Your task to perform on an android device: Go to Android settings Image 0: 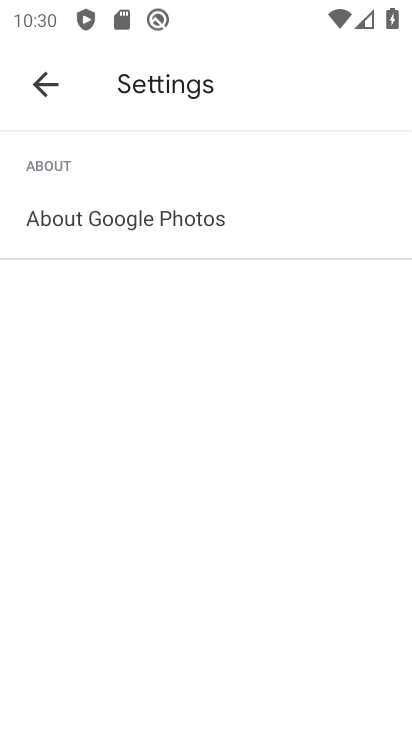
Step 0: press back button
Your task to perform on an android device: Go to Android settings Image 1: 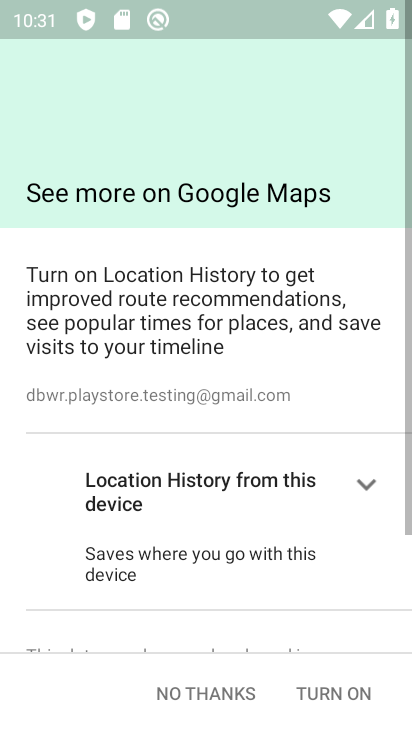
Step 1: press back button
Your task to perform on an android device: Go to Android settings Image 2: 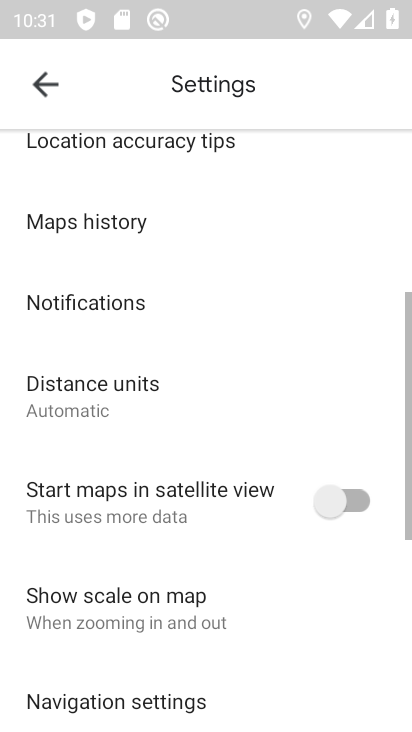
Step 2: press back button
Your task to perform on an android device: Go to Android settings Image 3: 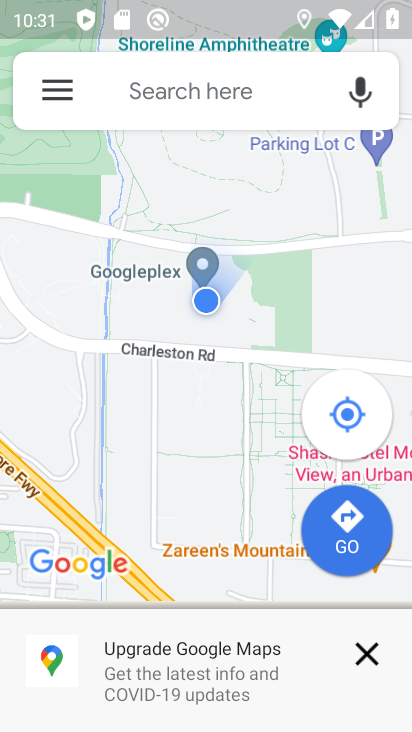
Step 3: press back button
Your task to perform on an android device: Go to Android settings Image 4: 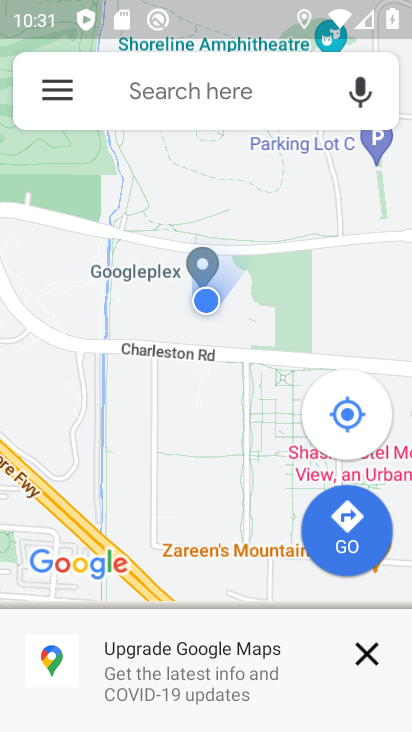
Step 4: press home button
Your task to perform on an android device: Go to Android settings Image 5: 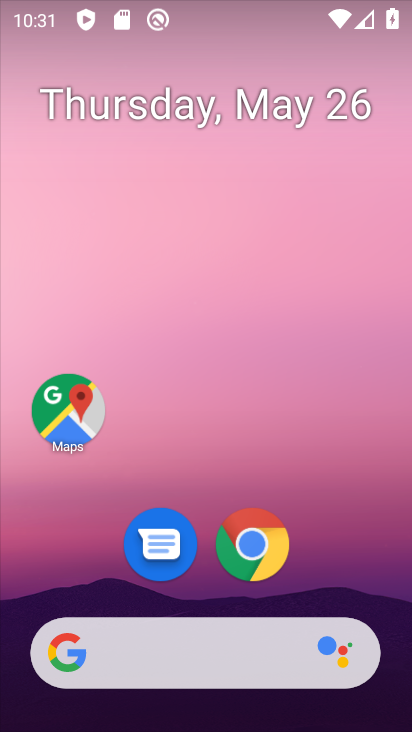
Step 5: drag from (347, 536) to (238, 2)
Your task to perform on an android device: Go to Android settings Image 6: 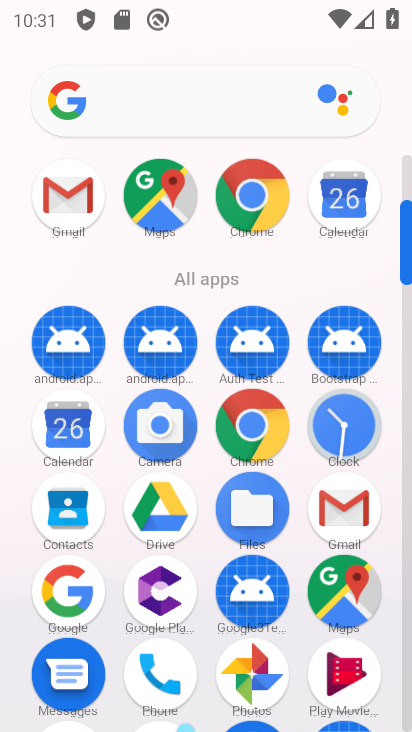
Step 6: drag from (12, 666) to (24, 292)
Your task to perform on an android device: Go to Android settings Image 7: 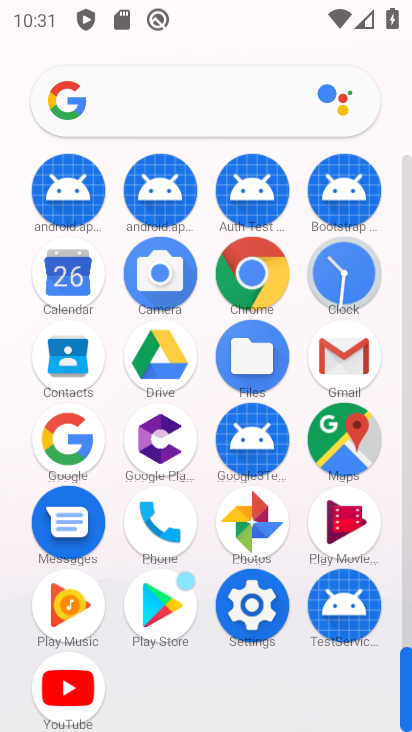
Step 7: click (252, 601)
Your task to perform on an android device: Go to Android settings Image 8: 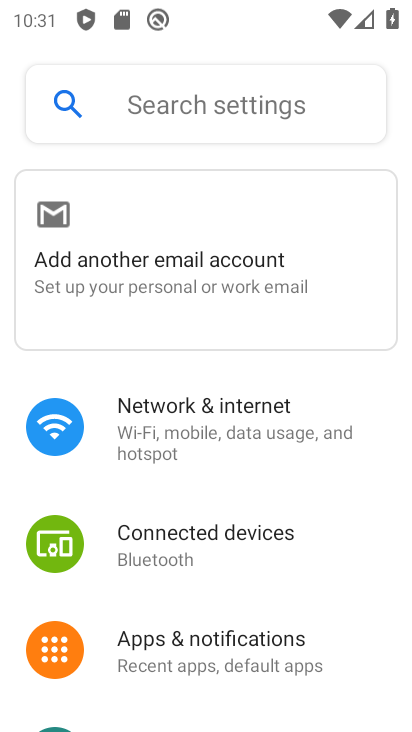
Step 8: task complete